Your task to perform on an android device: open app "Pluto TV - Live TV and Movies" (install if not already installed) and enter user name: "wools@yahoo.com" and password: "misplacing" Image 0: 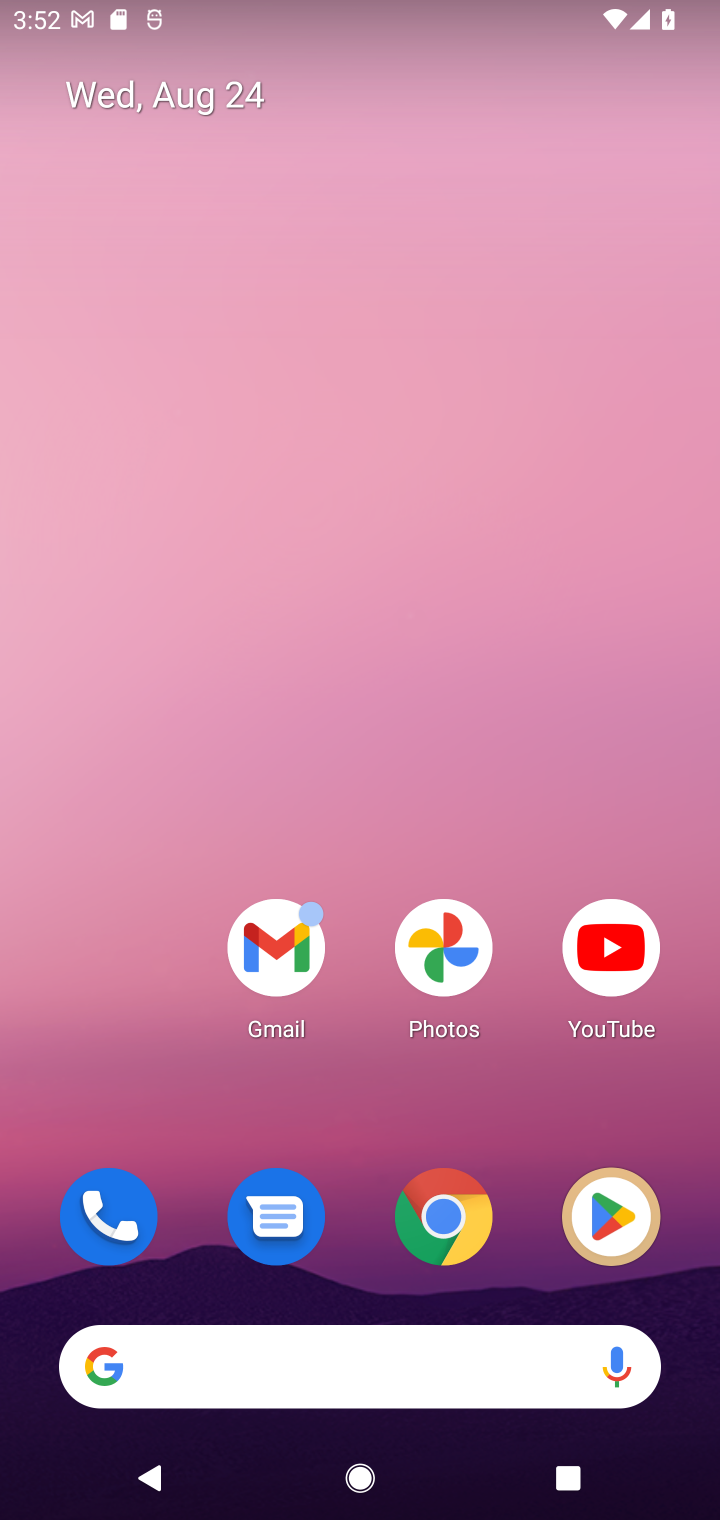
Step 0: click (574, 1204)
Your task to perform on an android device: open app "Pluto TV - Live TV and Movies" (install if not already installed) and enter user name: "wools@yahoo.com" and password: "misplacing" Image 1: 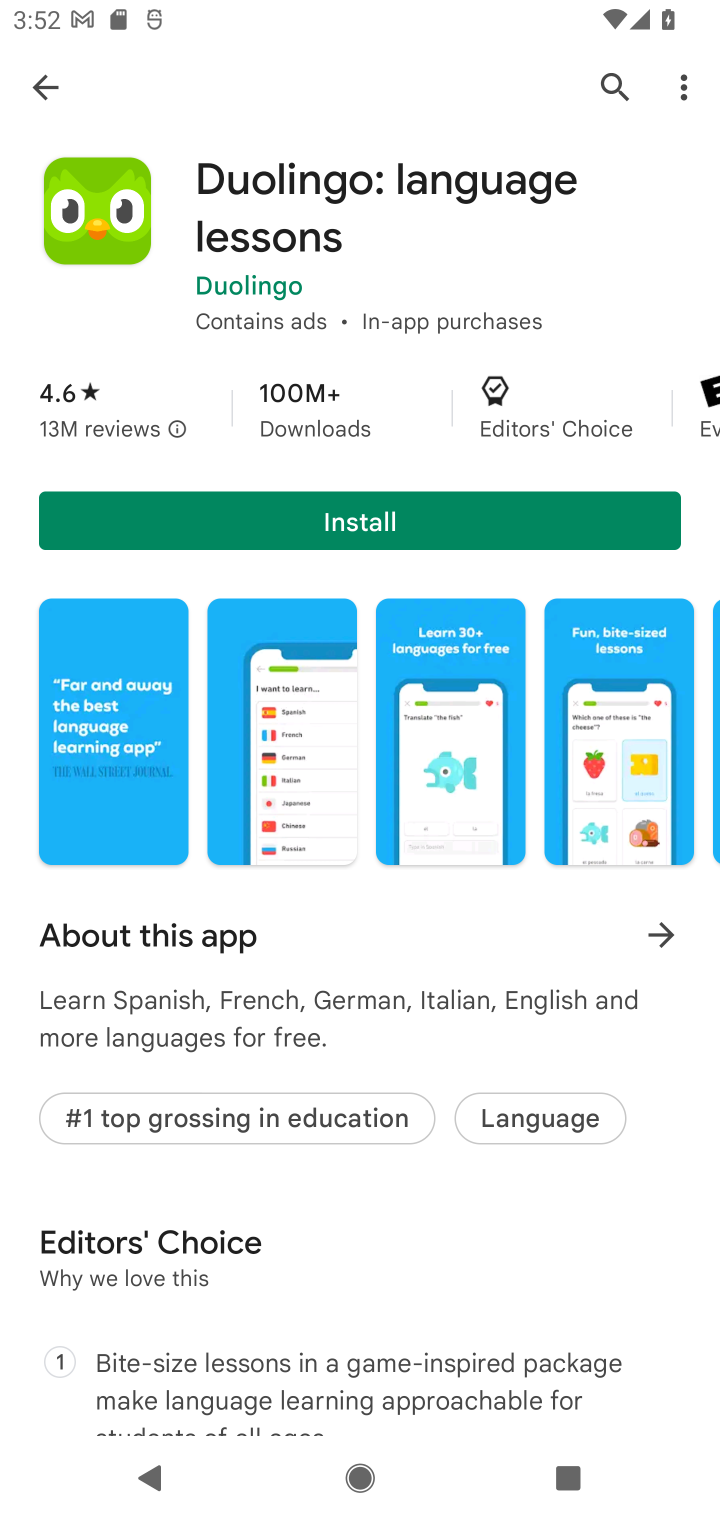
Step 1: click (610, 81)
Your task to perform on an android device: open app "Pluto TV - Live TV and Movies" (install if not already installed) and enter user name: "wools@yahoo.com" and password: "misplacing" Image 2: 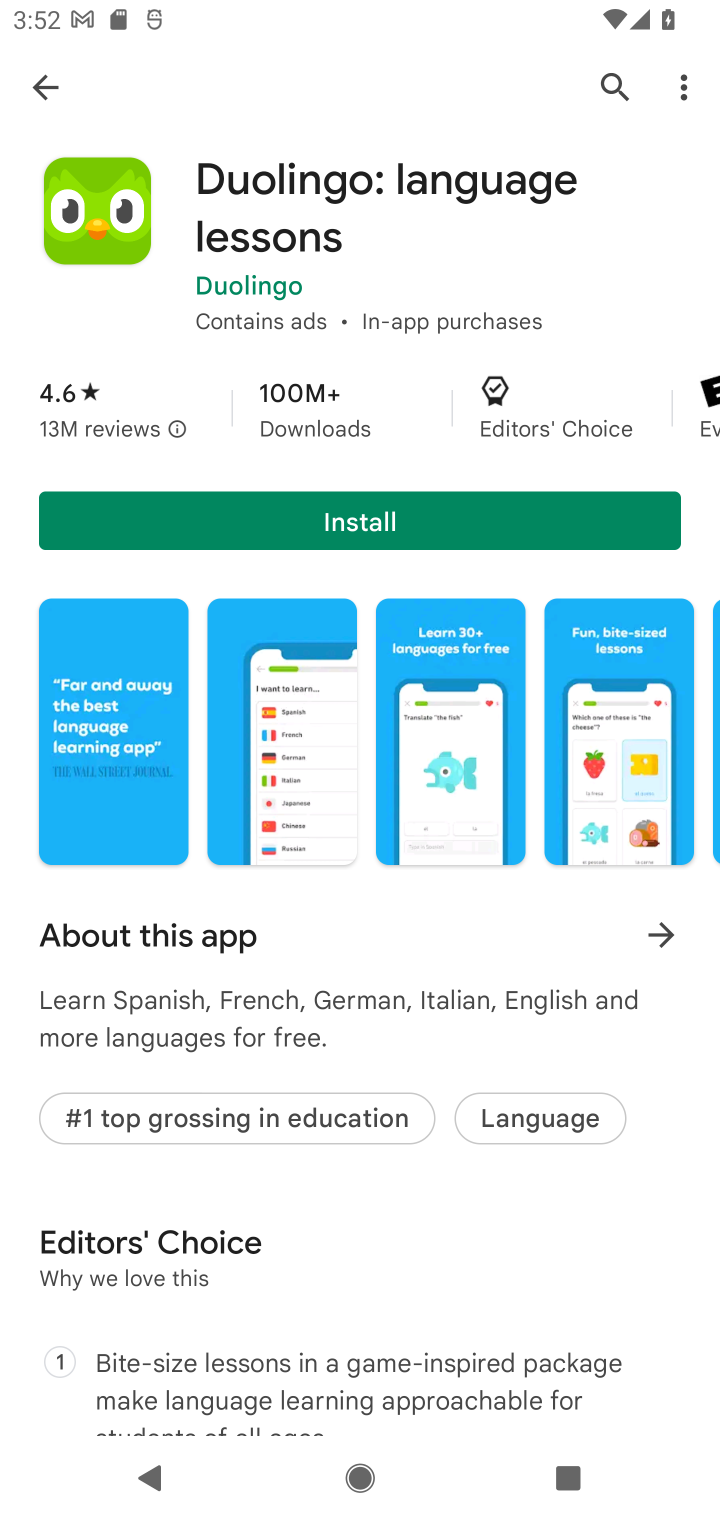
Step 2: click (588, 72)
Your task to perform on an android device: open app "Pluto TV - Live TV and Movies" (install if not already installed) and enter user name: "wools@yahoo.com" and password: "misplacing" Image 3: 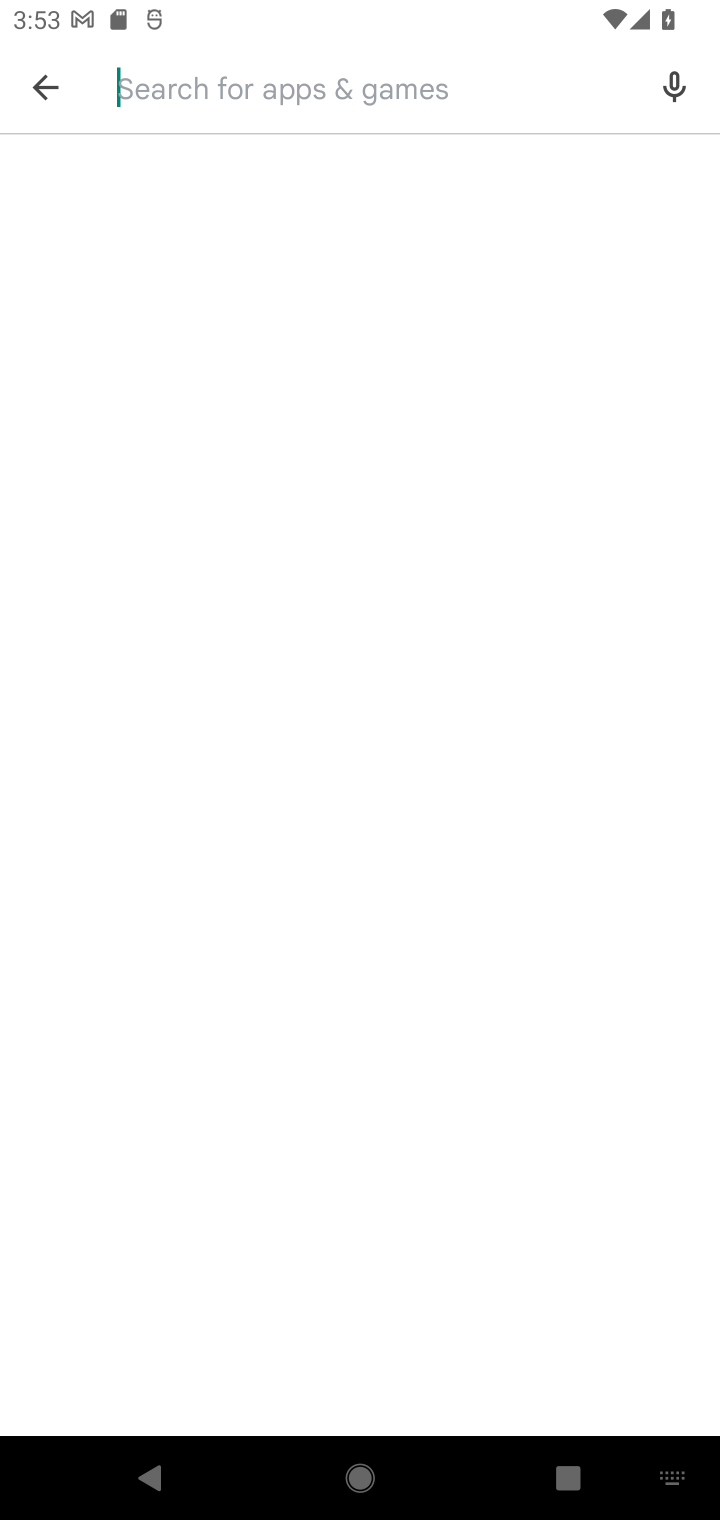
Step 3: type "Pluto TV - Live TV and Movies"
Your task to perform on an android device: open app "Pluto TV - Live TV and Movies" (install if not already installed) and enter user name: "wools@yahoo.com" and password: "misplacing" Image 4: 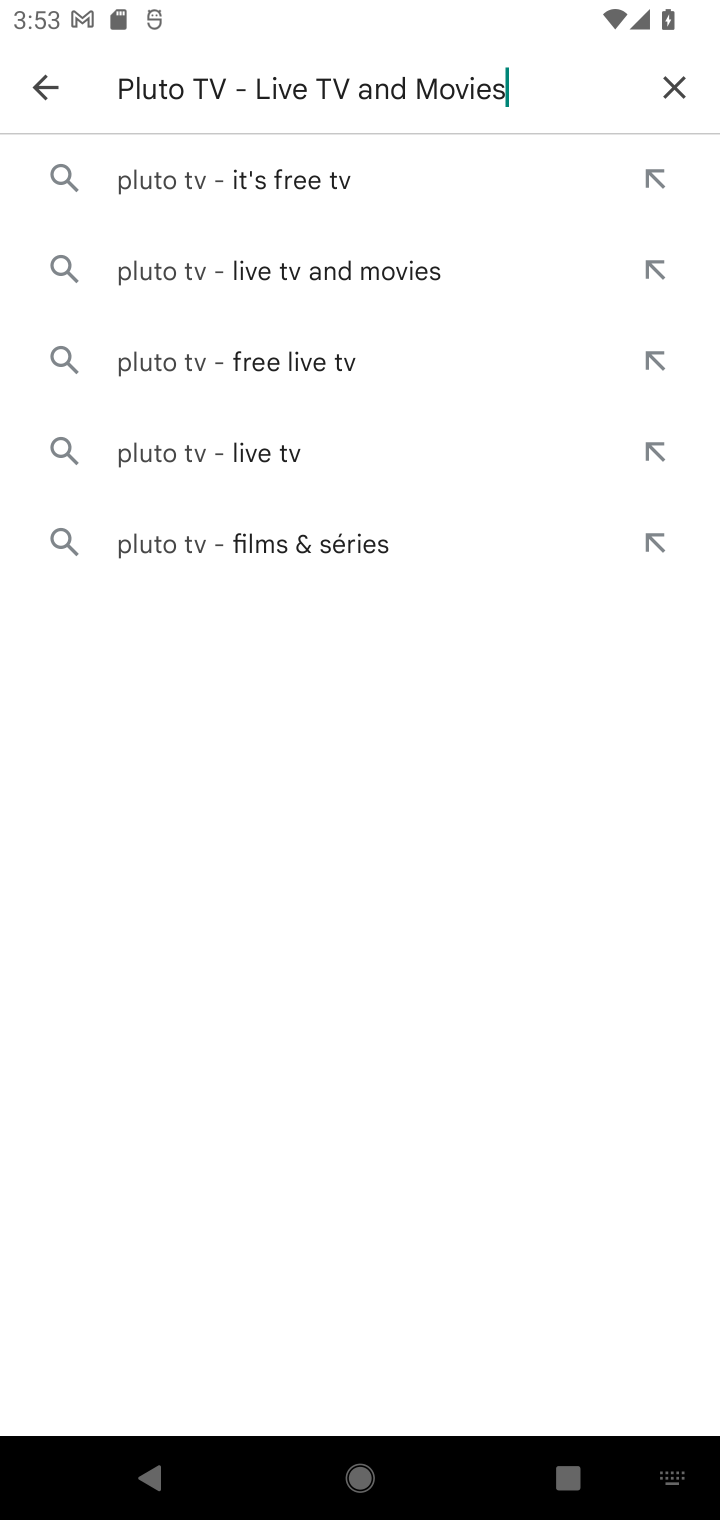
Step 4: type ""
Your task to perform on an android device: open app "Pluto TV - Live TV and Movies" (install if not already installed) and enter user name: "wools@yahoo.com" and password: "misplacing" Image 5: 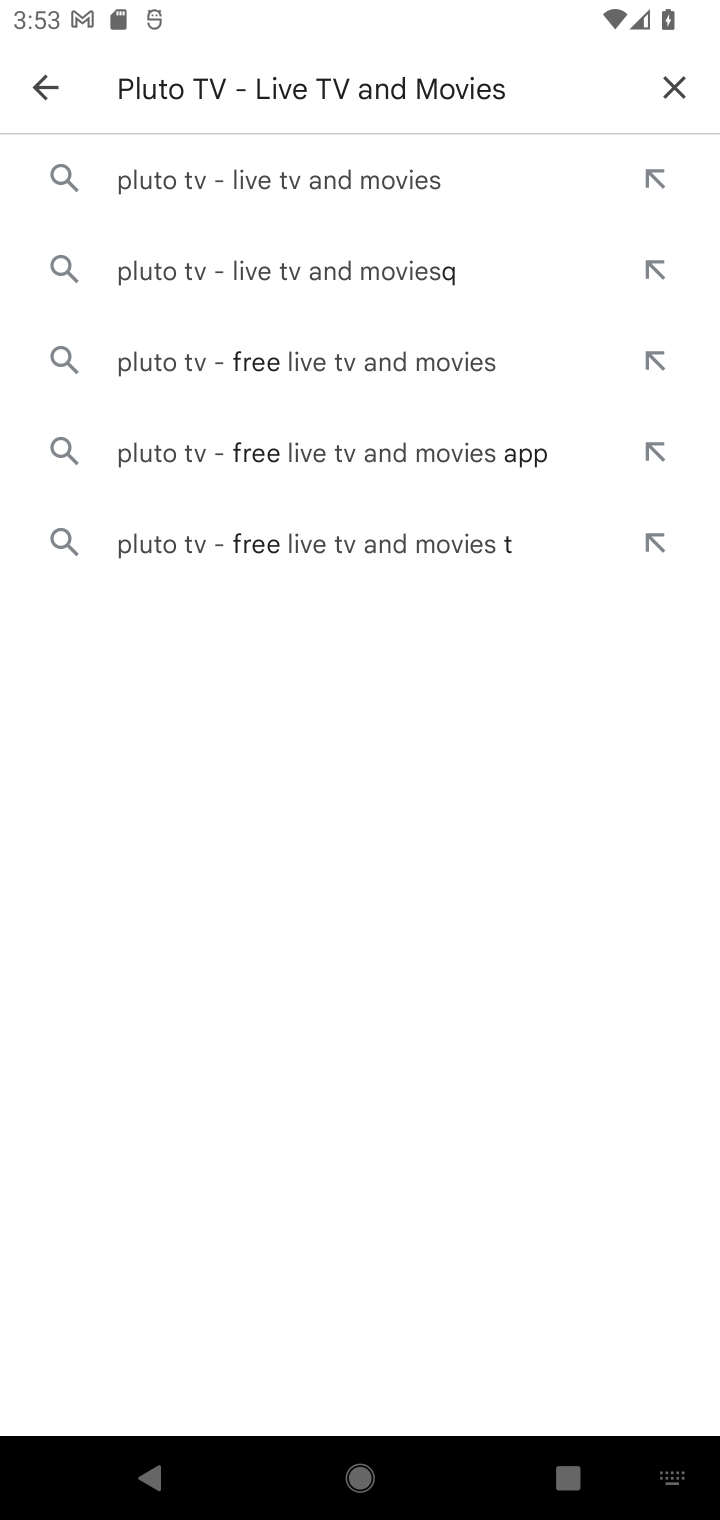
Step 5: click (205, 171)
Your task to perform on an android device: open app "Pluto TV - Live TV and Movies" (install if not already installed) and enter user name: "wools@yahoo.com" and password: "misplacing" Image 6: 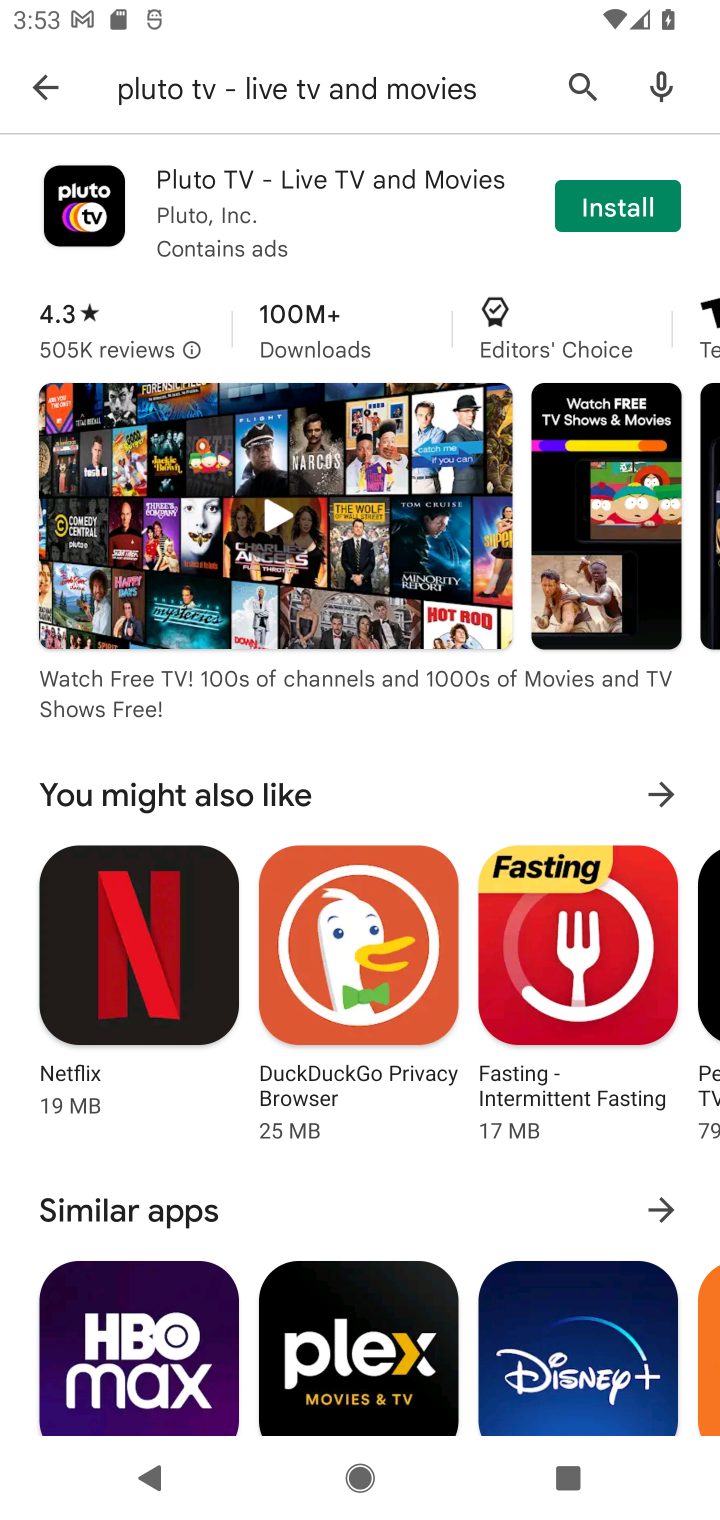
Step 6: click (621, 208)
Your task to perform on an android device: open app "Pluto TV - Live TV and Movies" (install if not already installed) and enter user name: "wools@yahoo.com" and password: "misplacing" Image 7: 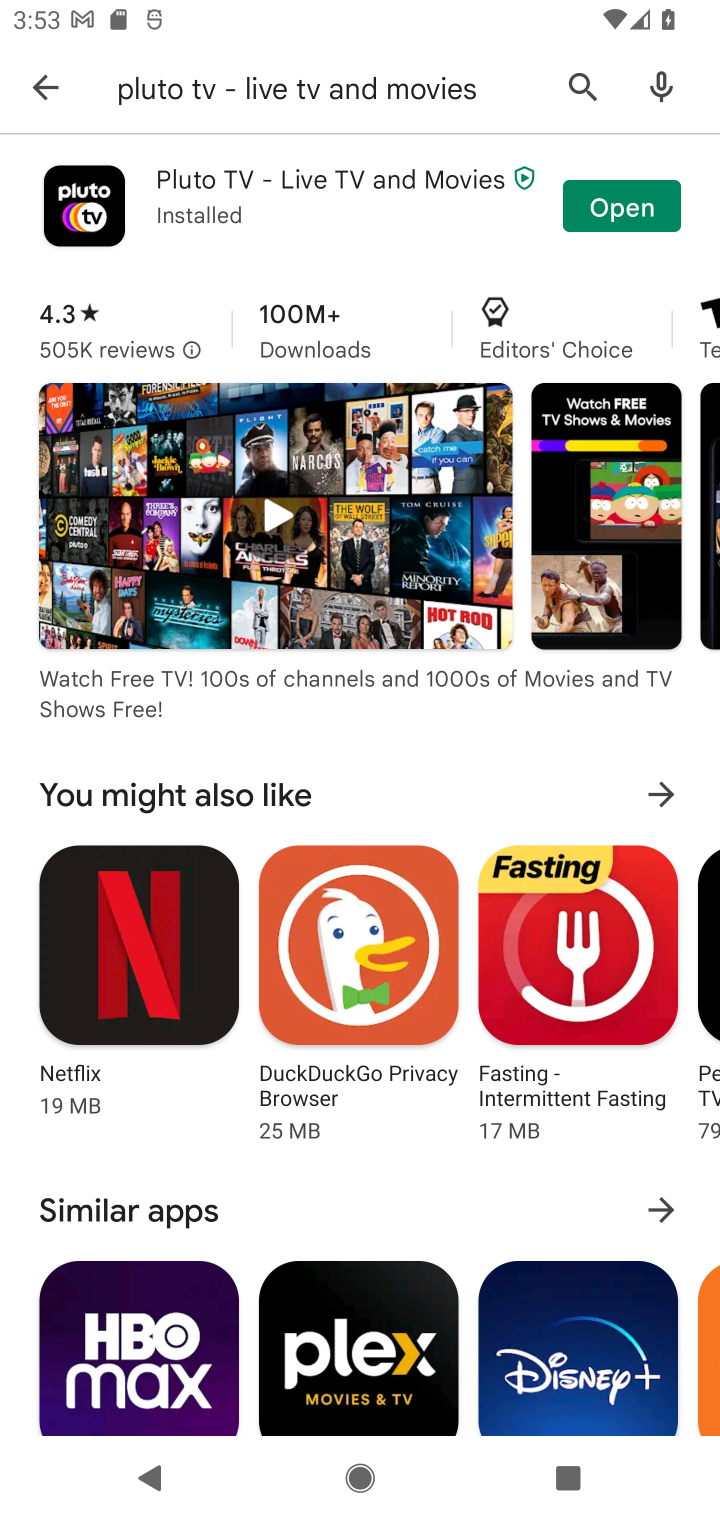
Step 7: click (632, 222)
Your task to perform on an android device: open app "Pluto TV - Live TV and Movies" (install if not already installed) and enter user name: "wools@yahoo.com" and password: "misplacing" Image 8: 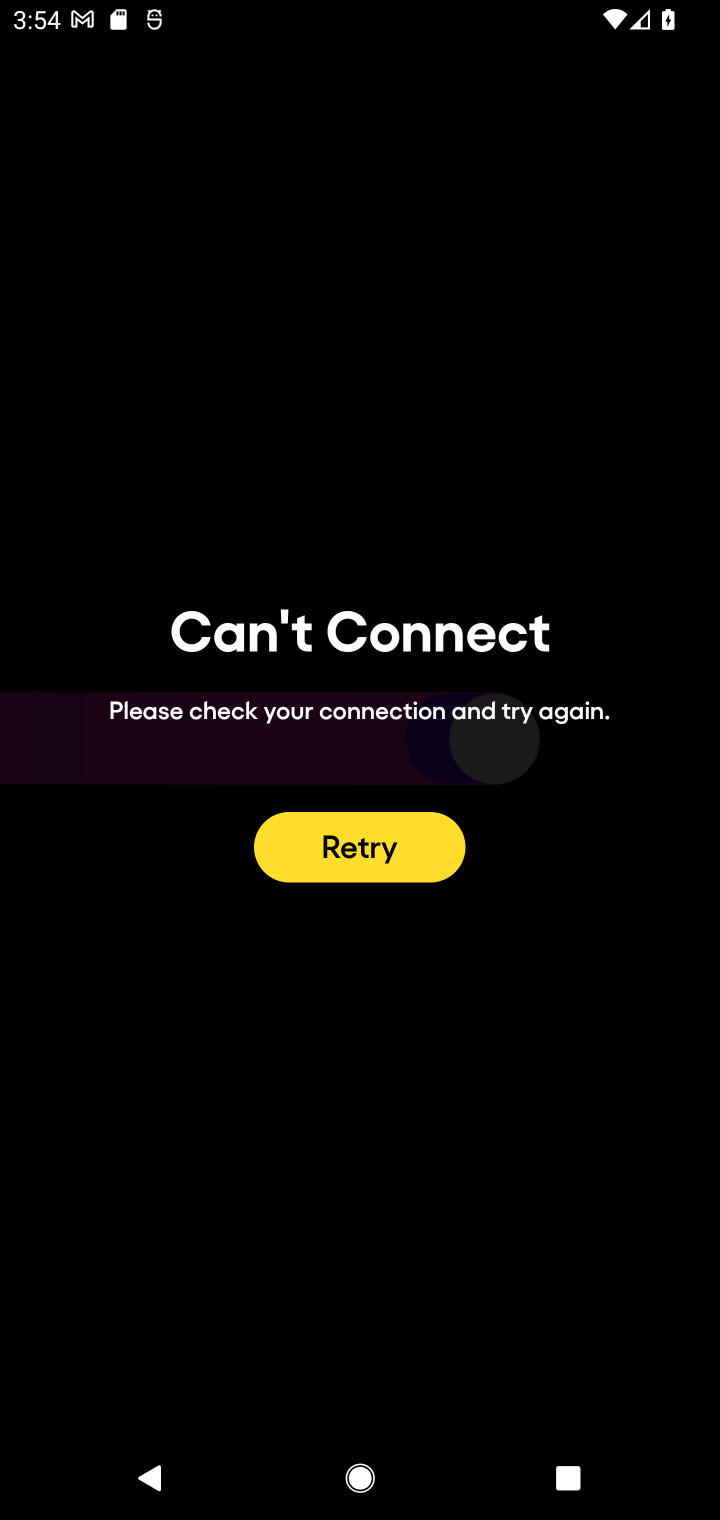
Step 8: task complete